Your task to perform on an android device: Open Amazon Image 0: 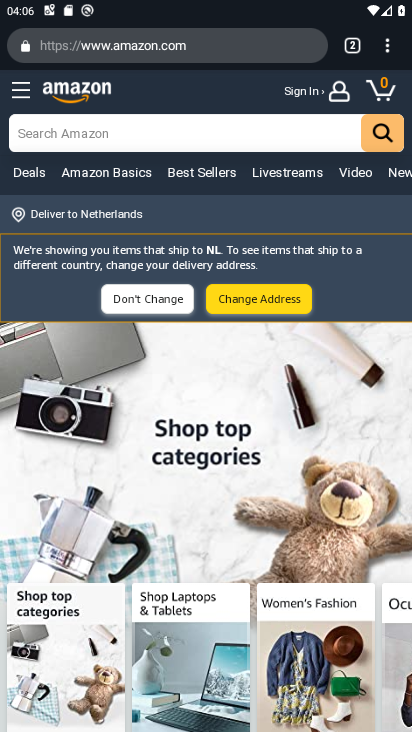
Step 0: task complete